Your task to perform on an android device: open a bookmark in the chrome app Image 0: 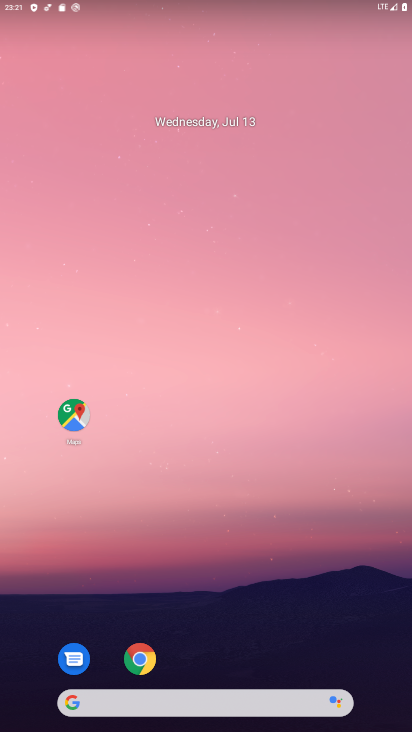
Step 0: click (138, 657)
Your task to perform on an android device: open a bookmark in the chrome app Image 1: 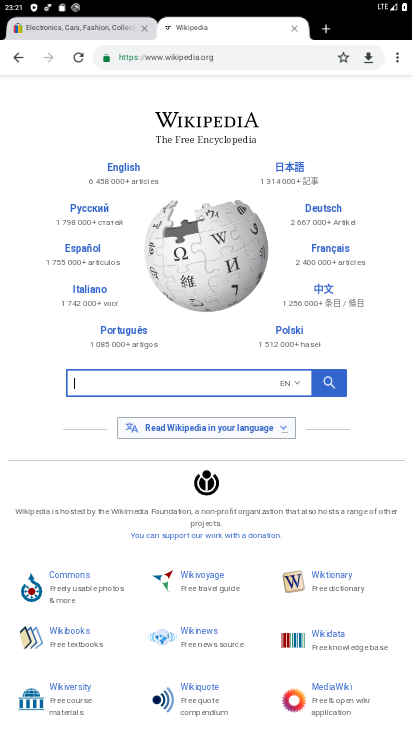
Step 1: click (395, 58)
Your task to perform on an android device: open a bookmark in the chrome app Image 2: 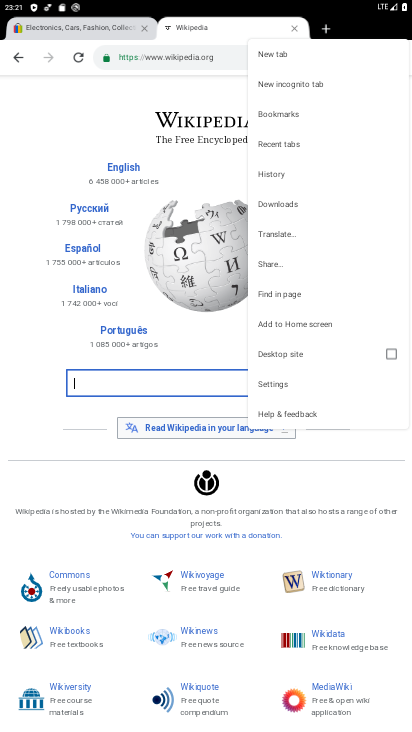
Step 2: click (268, 106)
Your task to perform on an android device: open a bookmark in the chrome app Image 3: 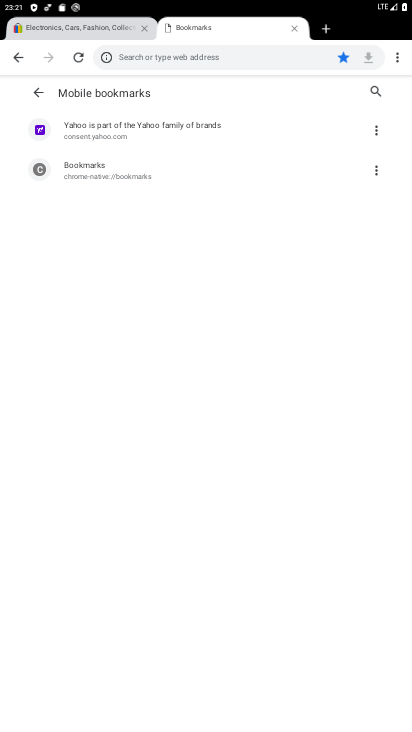
Step 3: task complete